Your task to perform on an android device: Go to Yahoo.com Image 0: 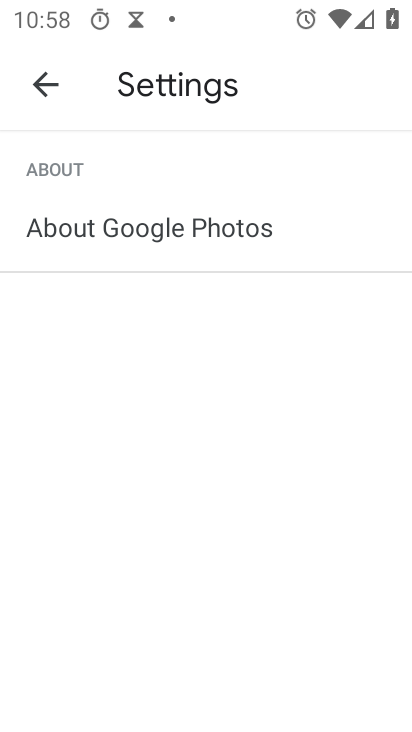
Step 0: press home button
Your task to perform on an android device: Go to Yahoo.com Image 1: 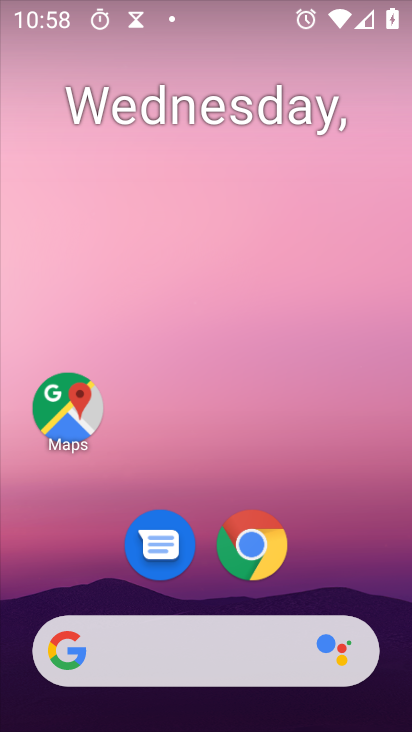
Step 1: click (246, 551)
Your task to perform on an android device: Go to Yahoo.com Image 2: 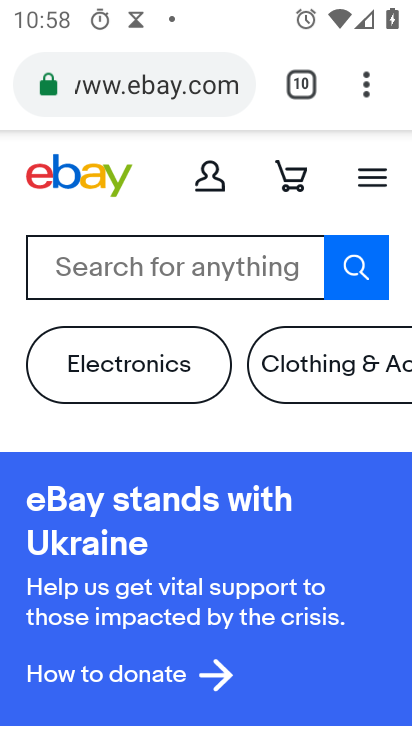
Step 2: drag from (368, 85) to (260, 168)
Your task to perform on an android device: Go to Yahoo.com Image 3: 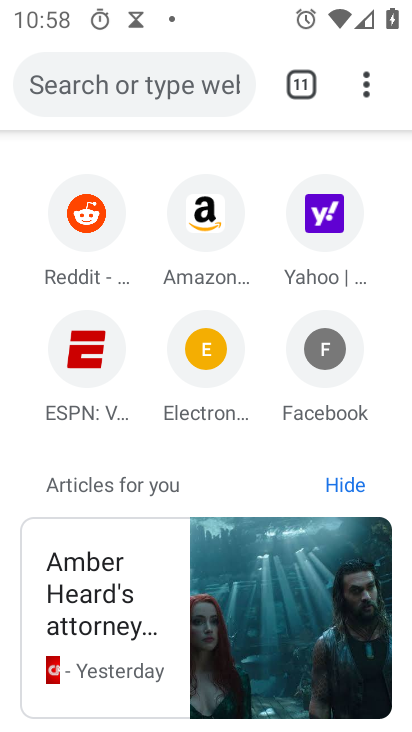
Step 3: click (329, 215)
Your task to perform on an android device: Go to Yahoo.com Image 4: 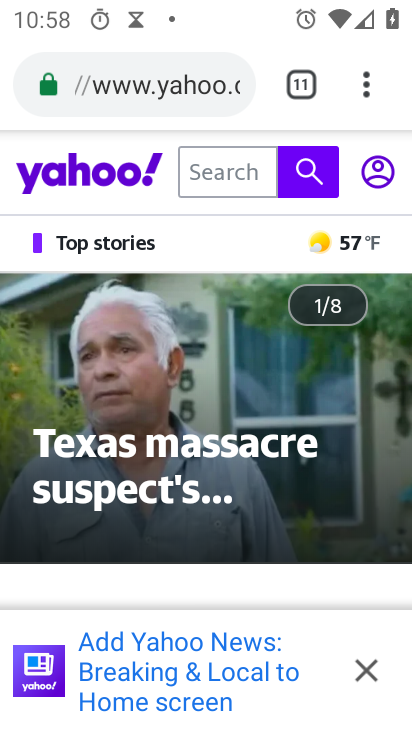
Step 4: task complete